Your task to perform on an android device: toggle improve location accuracy Image 0: 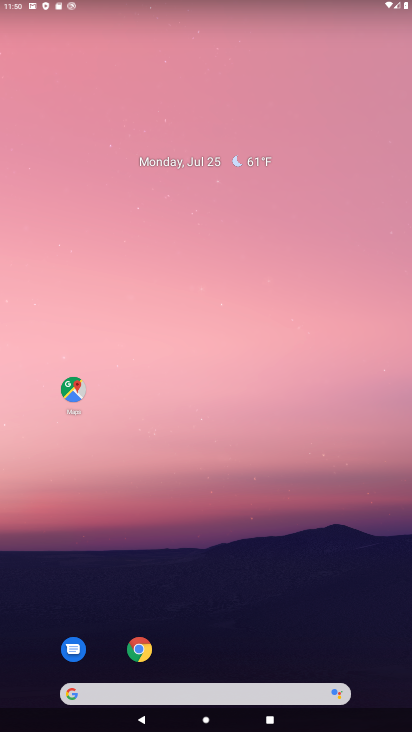
Step 0: drag from (404, 695) to (364, 79)
Your task to perform on an android device: toggle improve location accuracy Image 1: 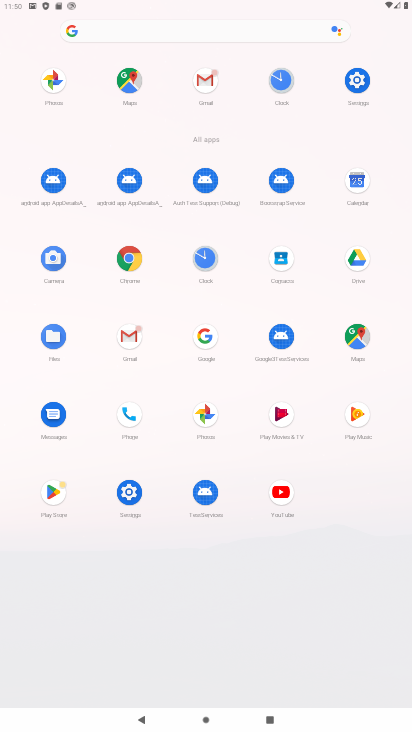
Step 1: click (363, 80)
Your task to perform on an android device: toggle improve location accuracy Image 2: 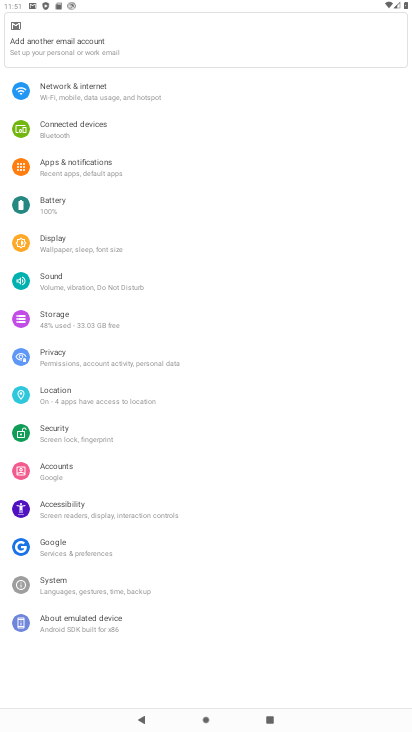
Step 2: click (59, 395)
Your task to perform on an android device: toggle improve location accuracy Image 3: 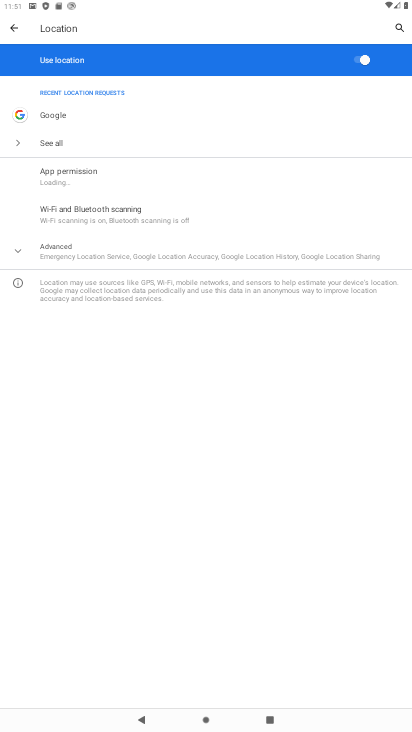
Step 3: click (24, 250)
Your task to perform on an android device: toggle improve location accuracy Image 4: 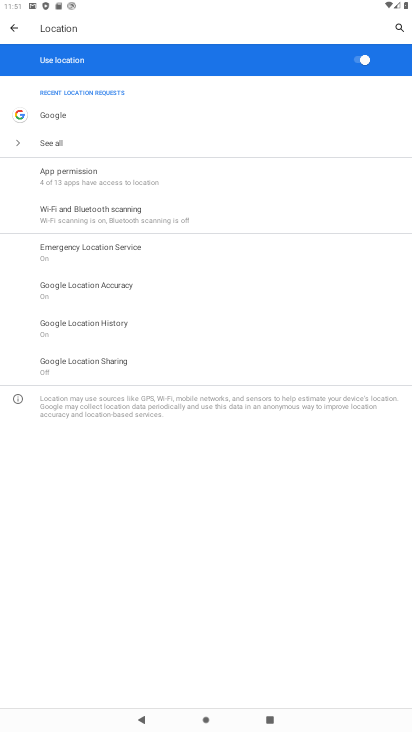
Step 4: click (105, 288)
Your task to perform on an android device: toggle improve location accuracy Image 5: 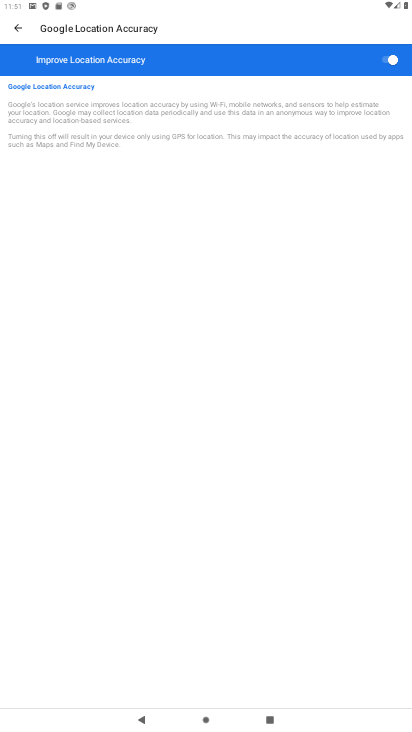
Step 5: click (383, 62)
Your task to perform on an android device: toggle improve location accuracy Image 6: 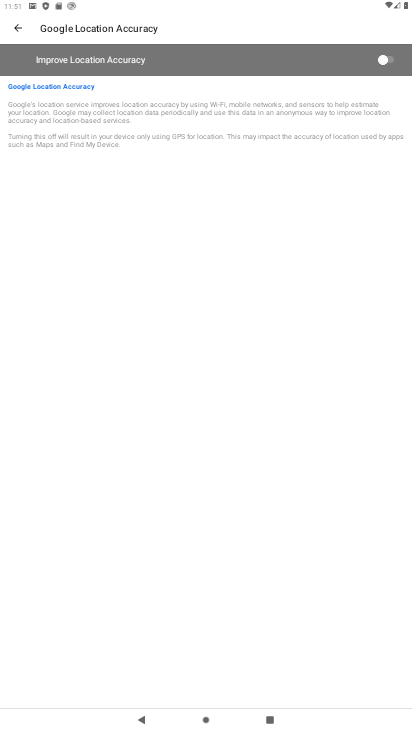
Step 6: task complete